Your task to perform on an android device: create a new album in the google photos Image 0: 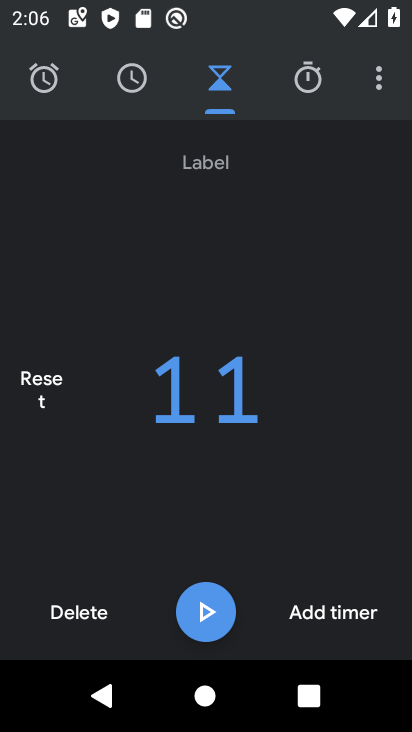
Step 0: press home button
Your task to perform on an android device: create a new album in the google photos Image 1: 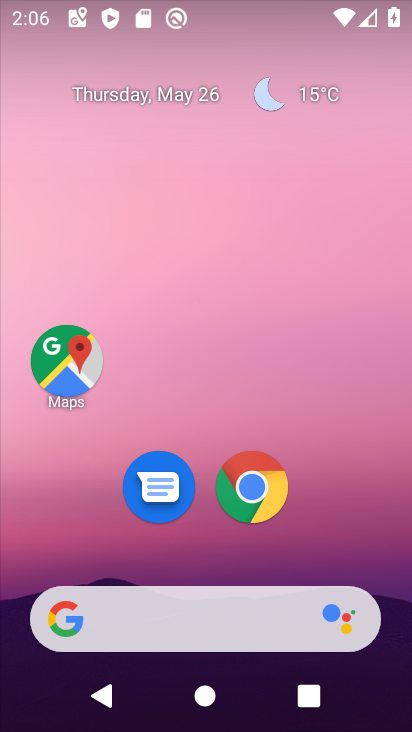
Step 1: drag from (207, 486) to (208, 209)
Your task to perform on an android device: create a new album in the google photos Image 2: 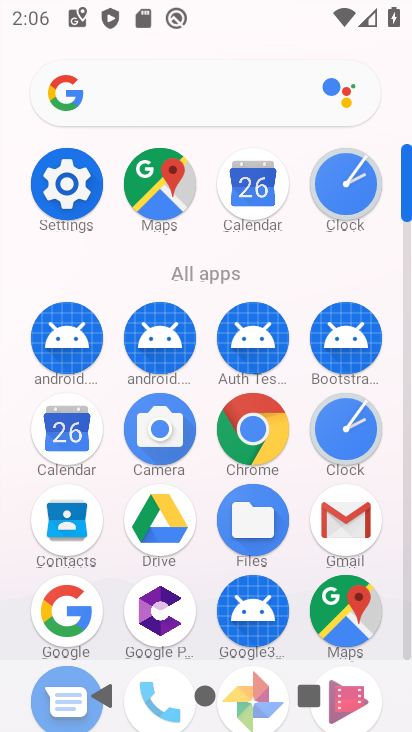
Step 2: drag from (111, 600) to (104, 281)
Your task to perform on an android device: create a new album in the google photos Image 3: 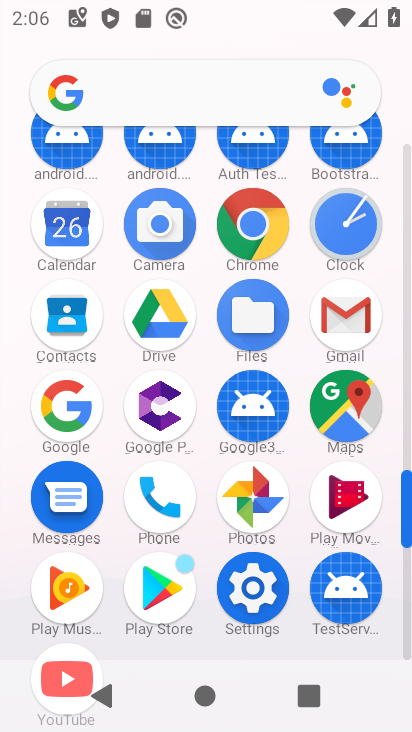
Step 3: click (238, 489)
Your task to perform on an android device: create a new album in the google photos Image 4: 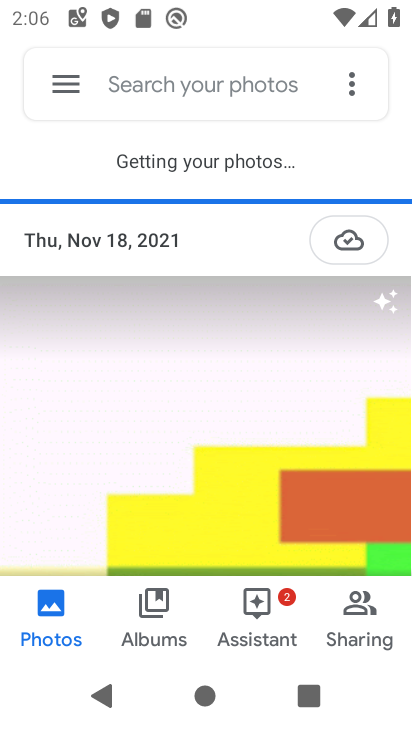
Step 4: click (342, 76)
Your task to perform on an android device: create a new album in the google photos Image 5: 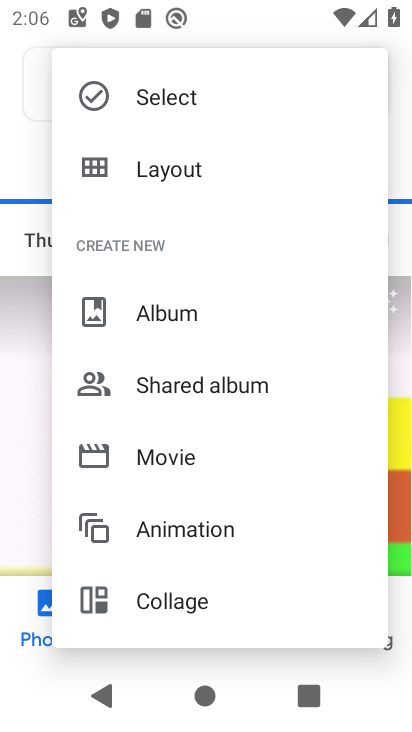
Step 5: click (169, 317)
Your task to perform on an android device: create a new album in the google photos Image 6: 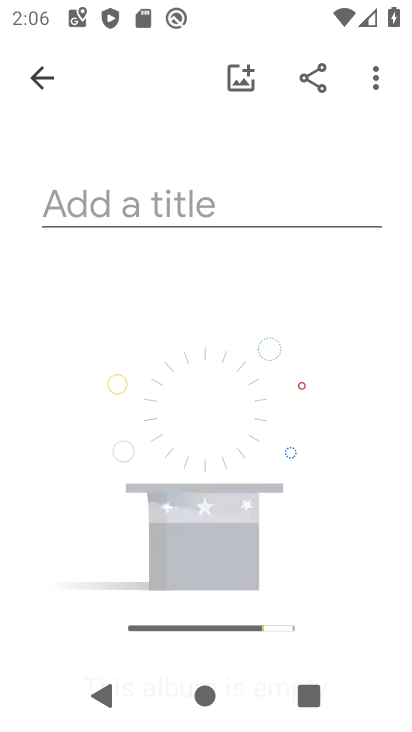
Step 6: click (150, 205)
Your task to perform on an android device: create a new album in the google photos Image 7: 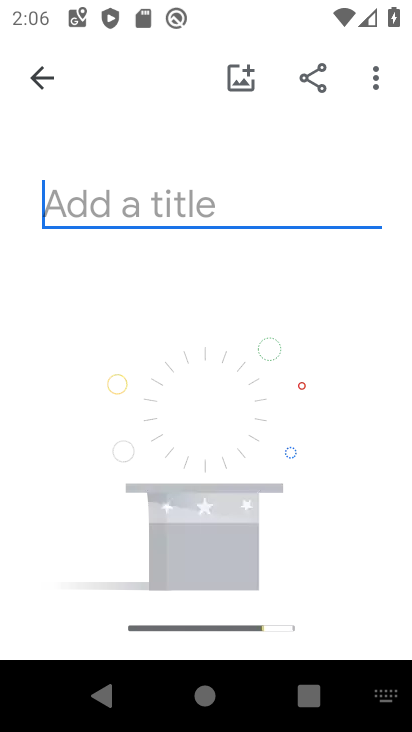
Step 7: type "fdndgfn"
Your task to perform on an android device: create a new album in the google photos Image 8: 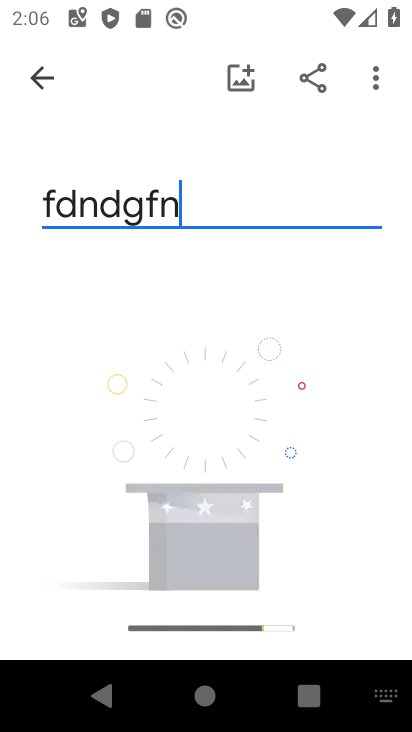
Step 8: drag from (218, 574) to (228, 259)
Your task to perform on an android device: create a new album in the google photos Image 9: 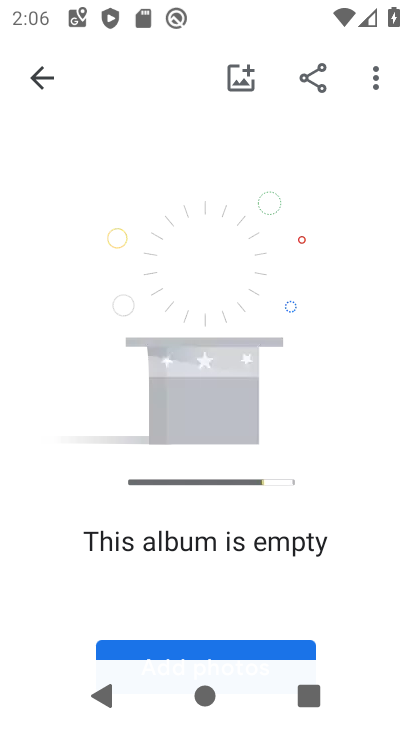
Step 9: drag from (207, 544) to (218, 277)
Your task to perform on an android device: create a new album in the google photos Image 10: 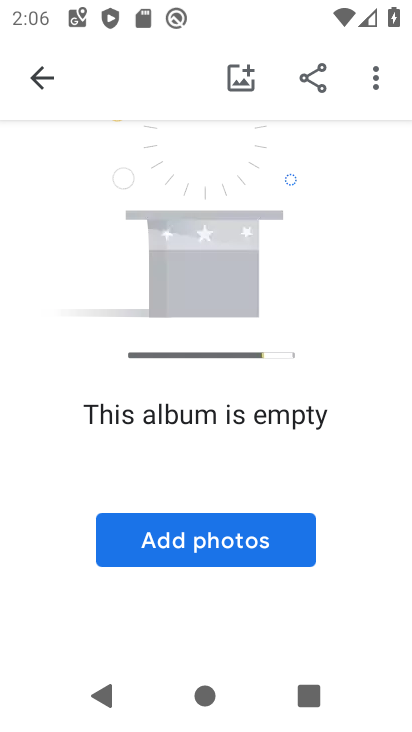
Step 10: click (199, 532)
Your task to perform on an android device: create a new album in the google photos Image 11: 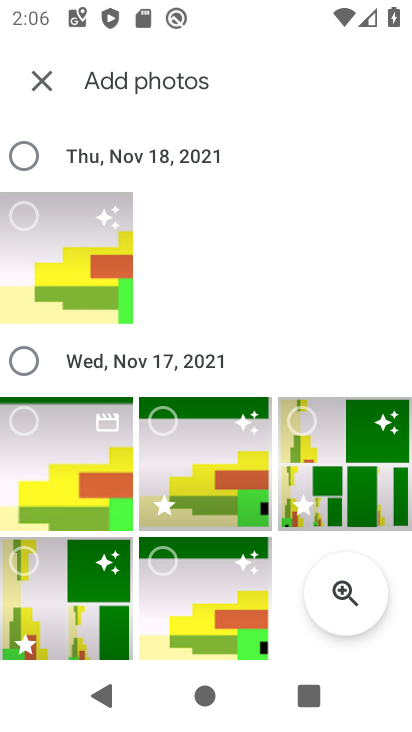
Step 11: click (148, 610)
Your task to perform on an android device: create a new album in the google photos Image 12: 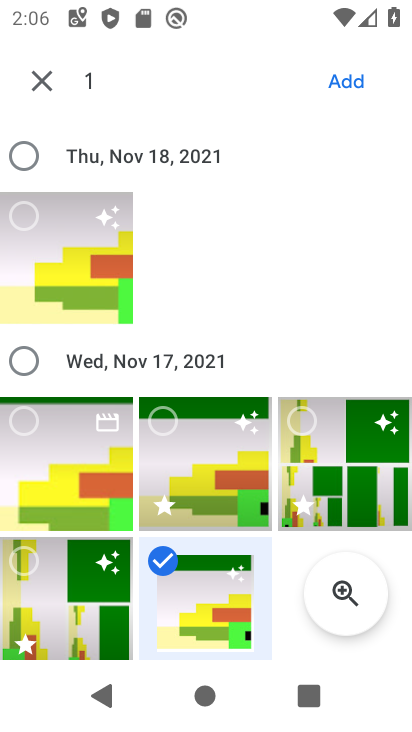
Step 12: click (338, 85)
Your task to perform on an android device: create a new album in the google photos Image 13: 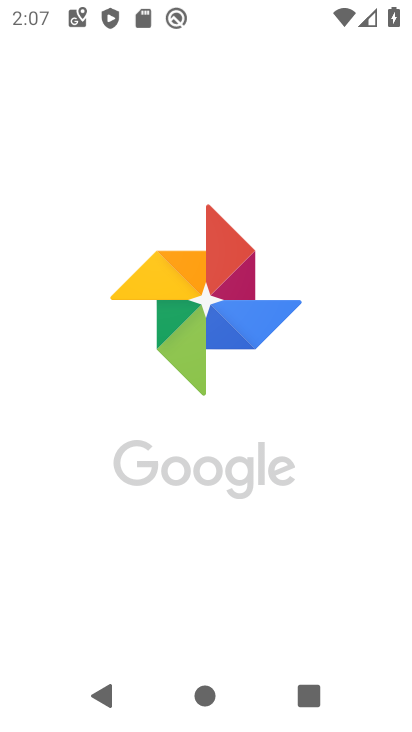
Step 13: task complete